Your task to perform on an android device: Open Google Maps Image 0: 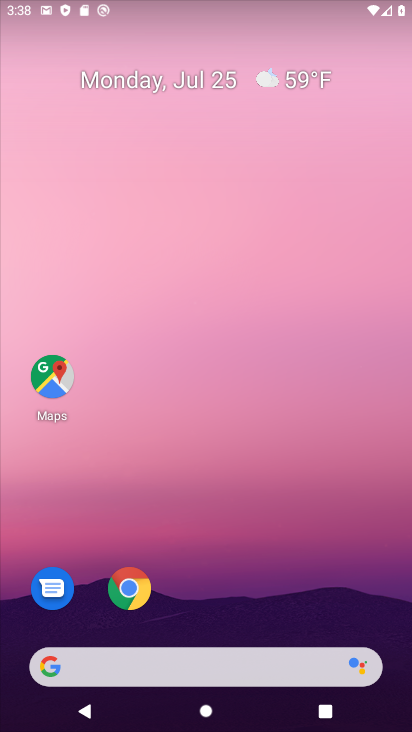
Step 0: press home button
Your task to perform on an android device: Open Google Maps Image 1: 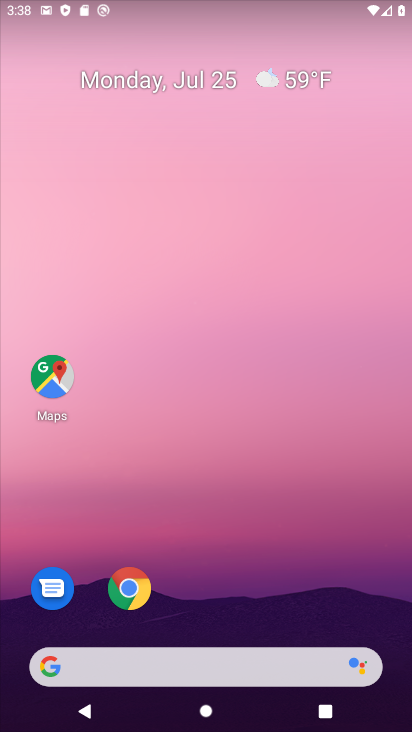
Step 1: click (42, 369)
Your task to perform on an android device: Open Google Maps Image 2: 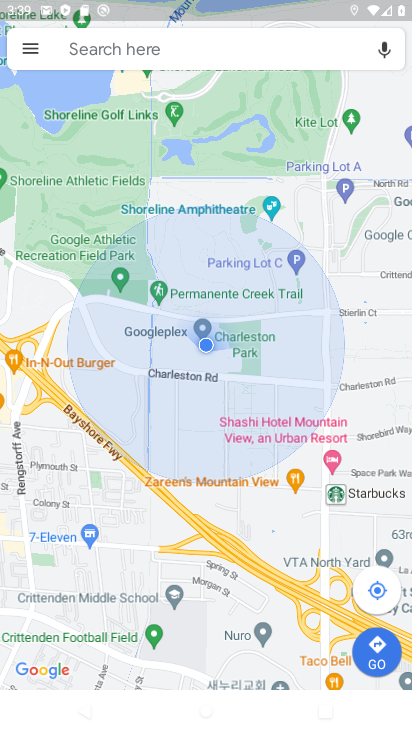
Step 2: task complete